Your task to perform on an android device: check android version Image 0: 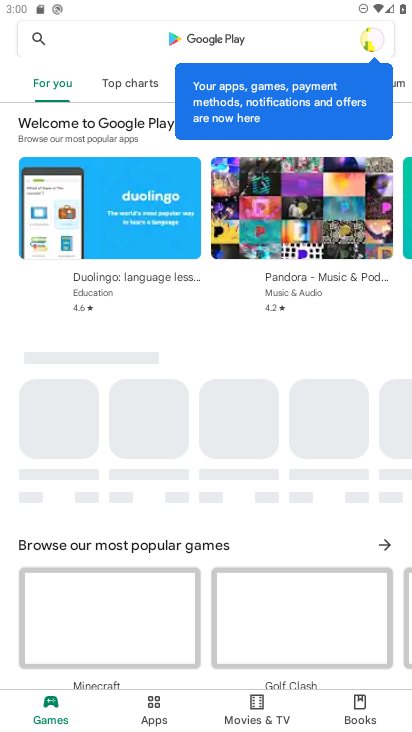
Step 0: press home button
Your task to perform on an android device: check android version Image 1: 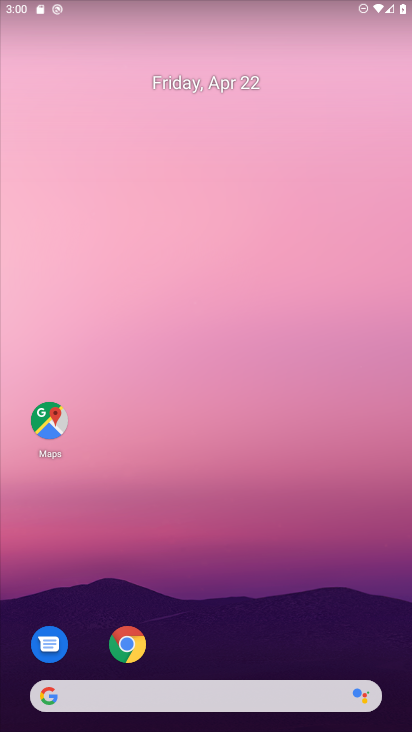
Step 1: drag from (354, 493) to (331, 7)
Your task to perform on an android device: check android version Image 2: 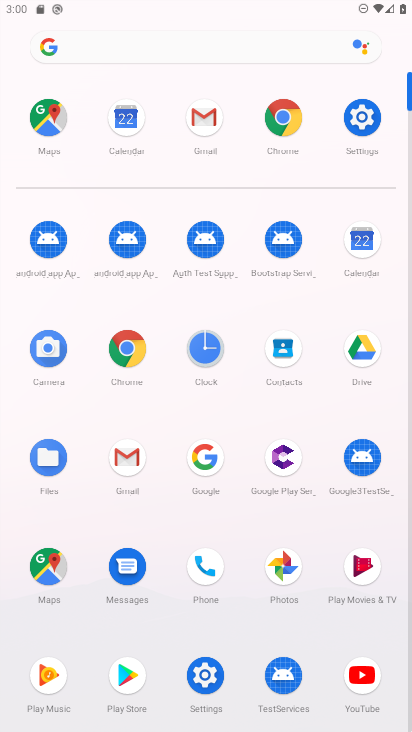
Step 2: click (200, 684)
Your task to perform on an android device: check android version Image 3: 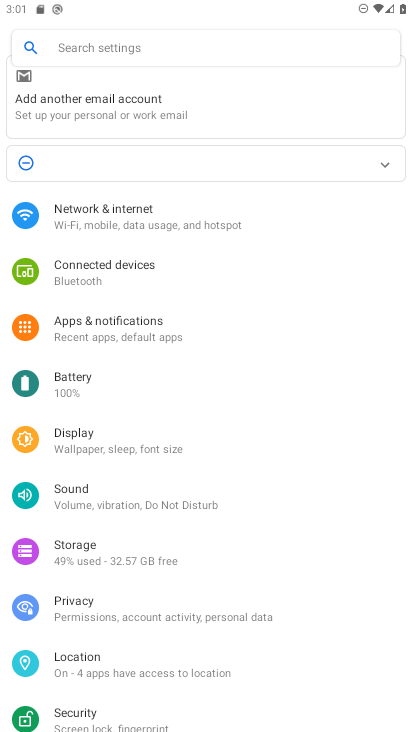
Step 3: drag from (293, 648) to (213, 109)
Your task to perform on an android device: check android version Image 4: 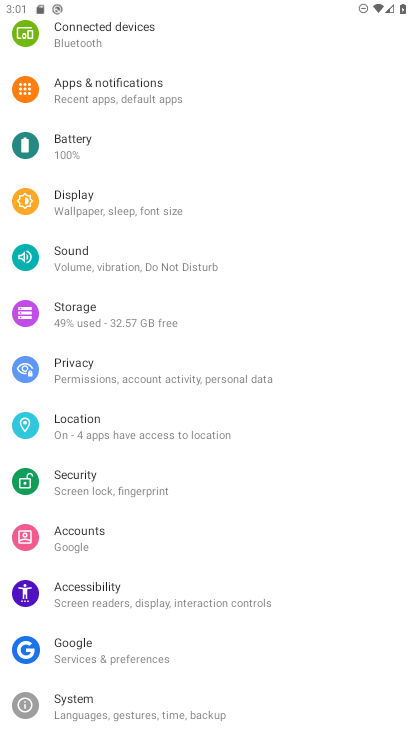
Step 4: drag from (160, 641) to (234, 139)
Your task to perform on an android device: check android version Image 5: 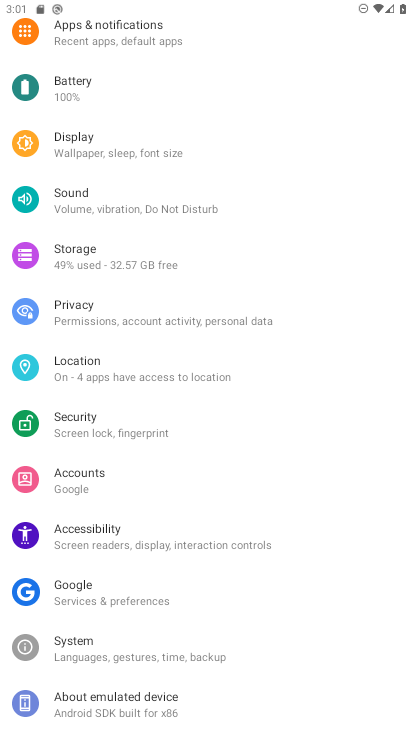
Step 5: click (125, 706)
Your task to perform on an android device: check android version Image 6: 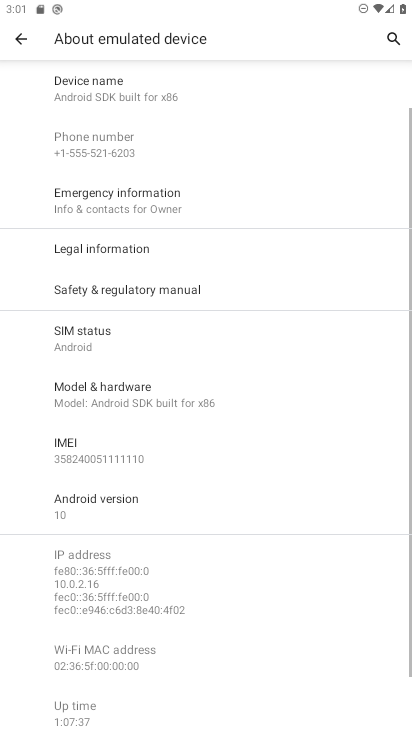
Step 6: click (125, 506)
Your task to perform on an android device: check android version Image 7: 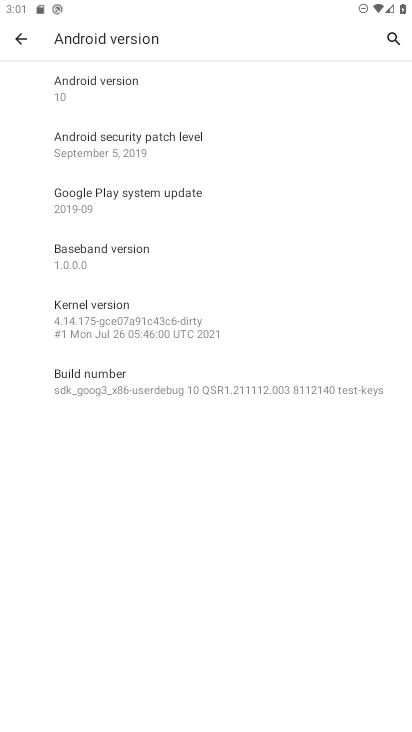
Step 7: task complete